Your task to perform on an android device: open device folders in google photos Image 0: 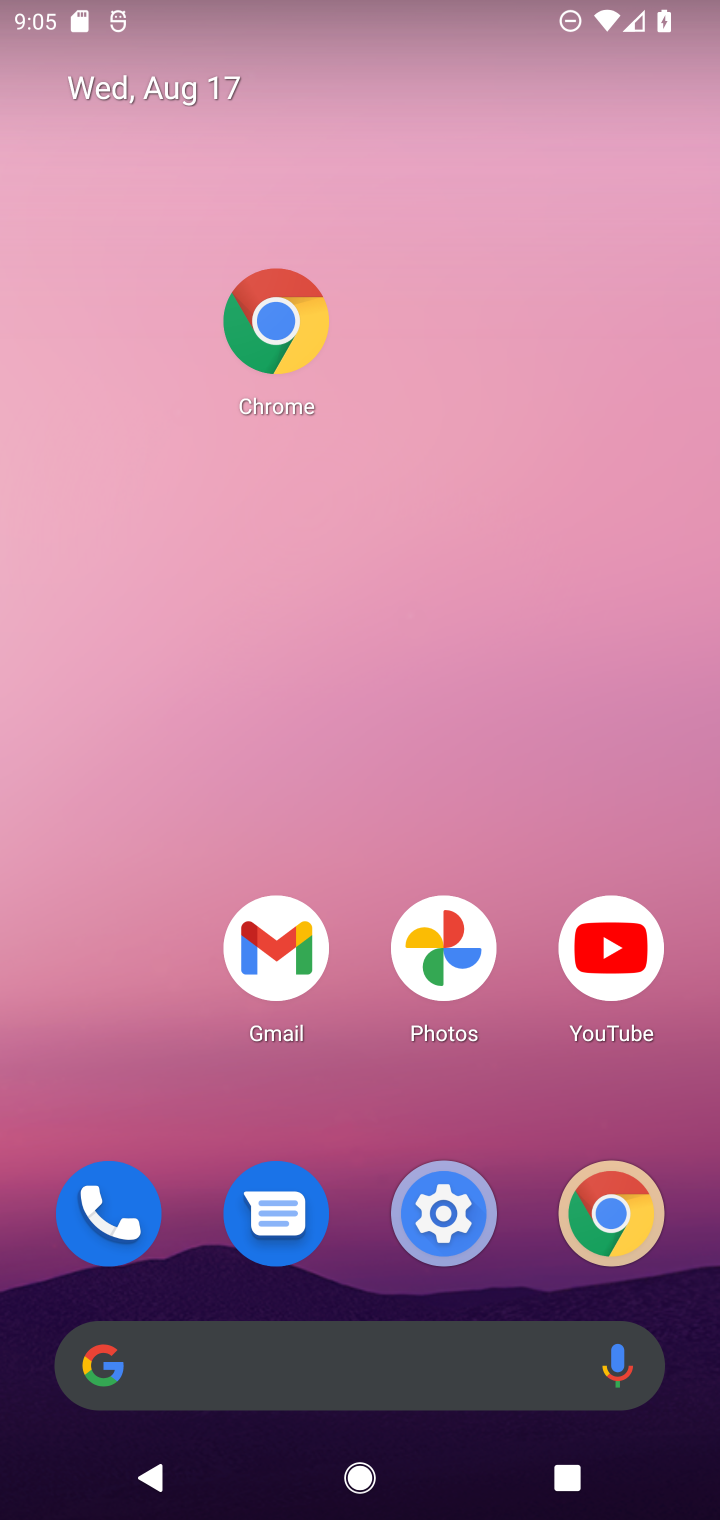
Step 0: click (465, 943)
Your task to perform on an android device: open device folders in google photos Image 1: 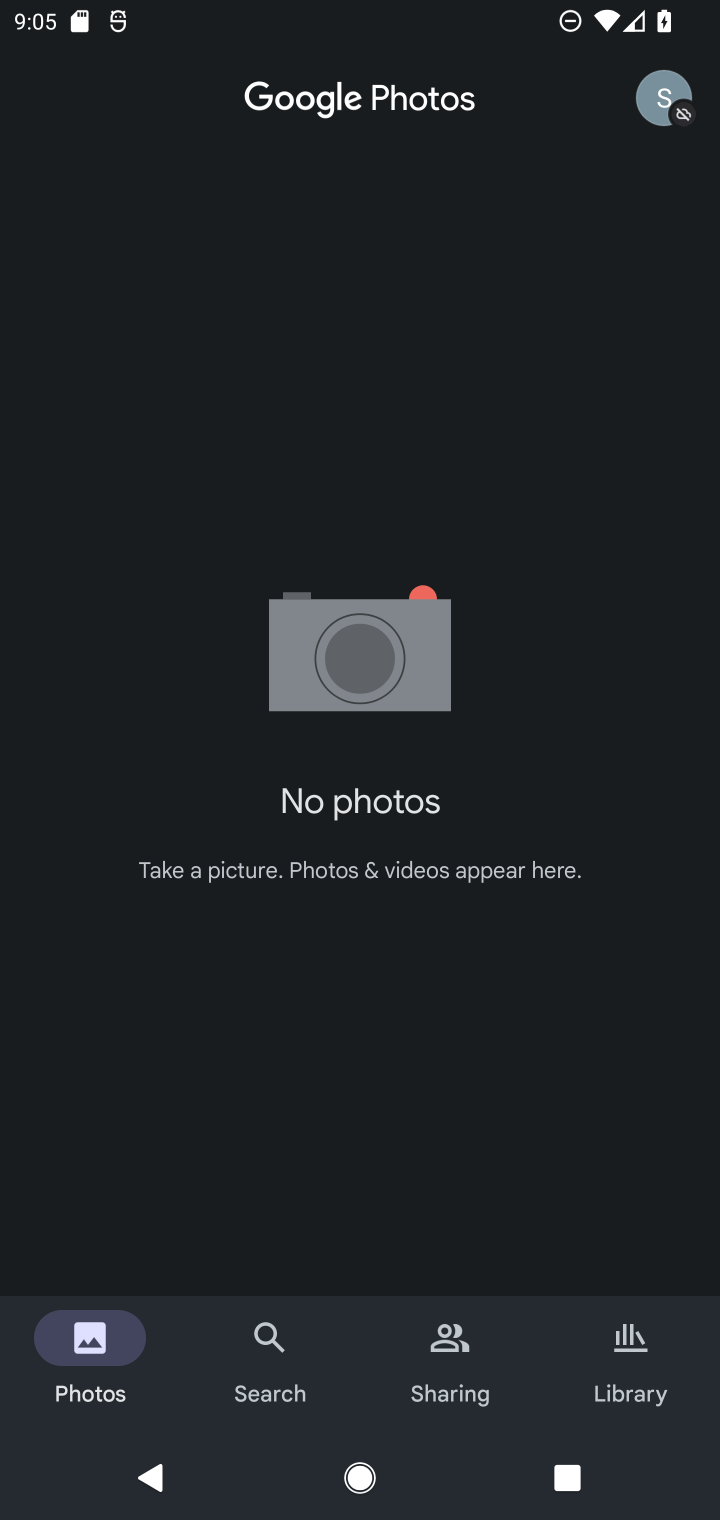
Step 1: click (651, 123)
Your task to perform on an android device: open device folders in google photos Image 2: 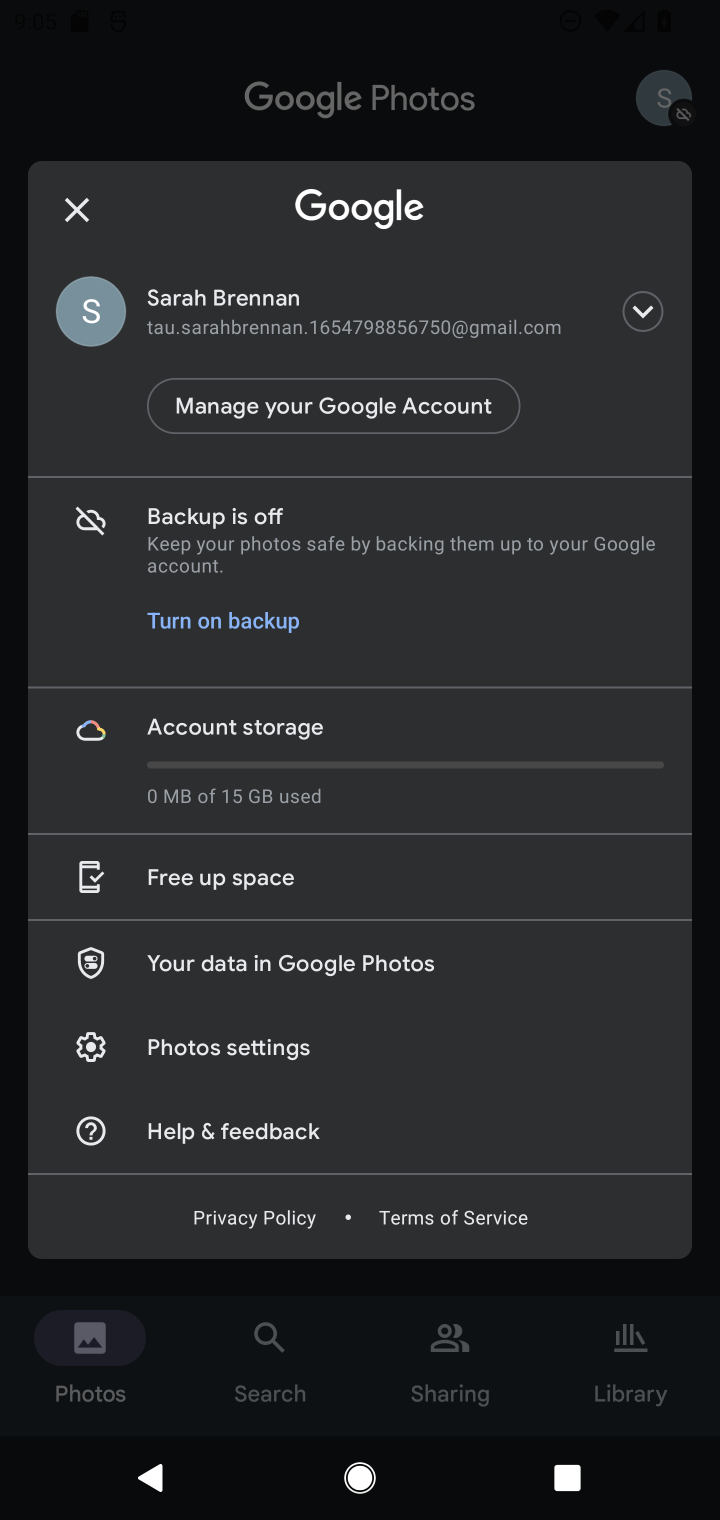
Step 2: task complete